Your task to perform on an android device: delete location history Image 0: 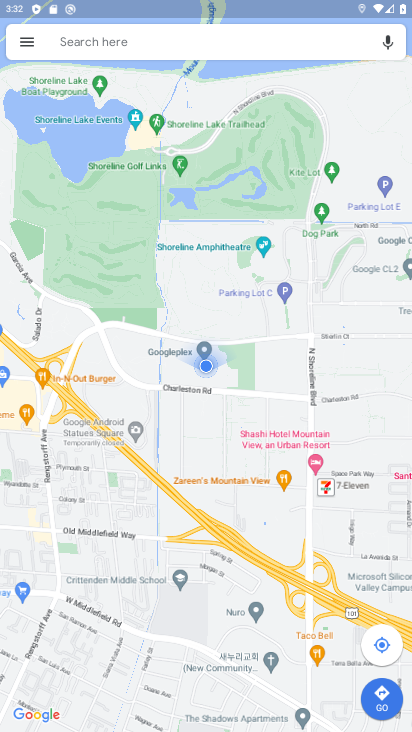
Step 0: press back button
Your task to perform on an android device: delete location history Image 1: 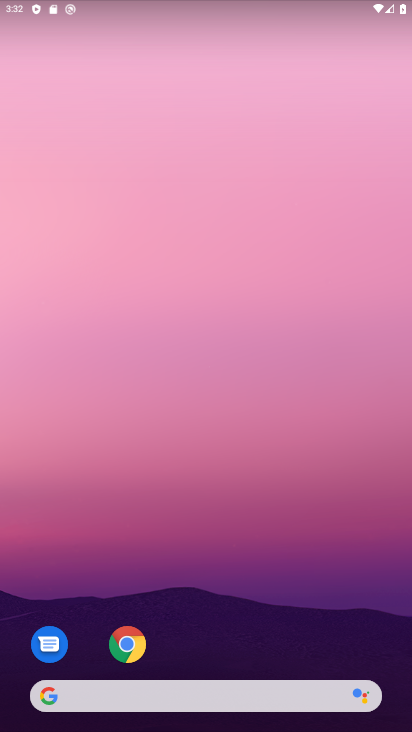
Step 1: click (34, 381)
Your task to perform on an android device: delete location history Image 2: 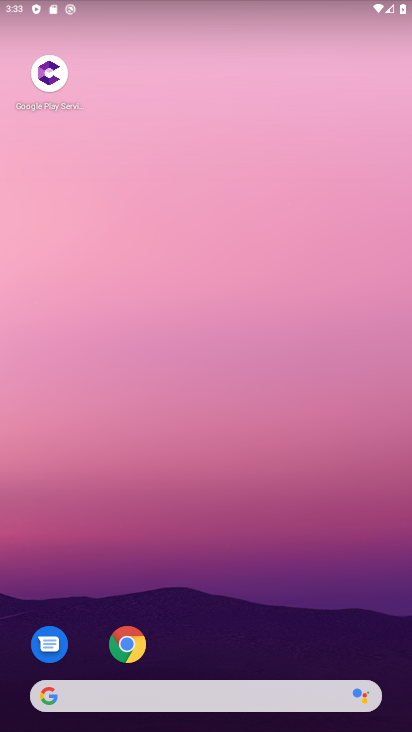
Step 2: drag from (163, 531) to (244, 117)
Your task to perform on an android device: delete location history Image 3: 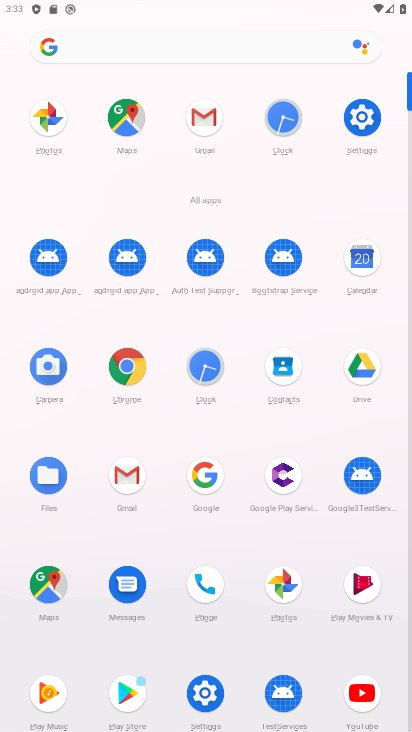
Step 3: click (118, 118)
Your task to perform on an android device: delete location history Image 4: 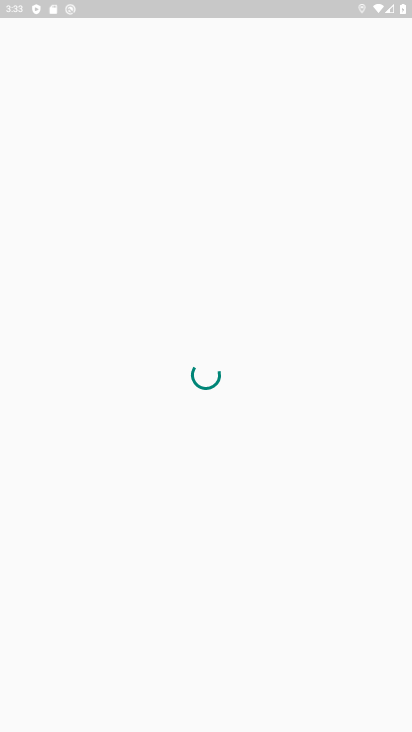
Step 4: click (31, 35)
Your task to perform on an android device: delete location history Image 5: 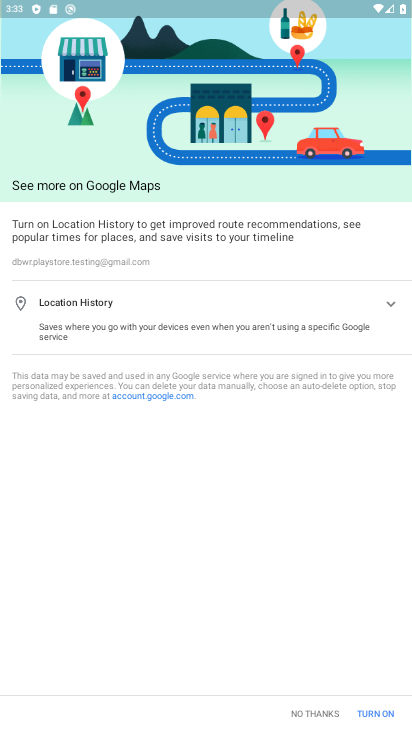
Step 5: click (322, 712)
Your task to perform on an android device: delete location history Image 6: 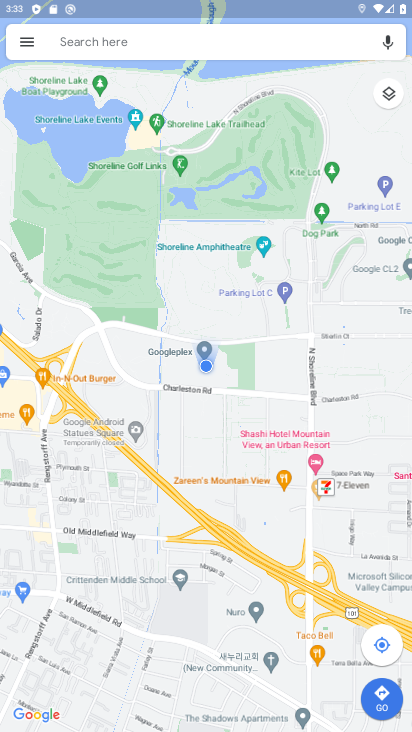
Step 6: click (17, 44)
Your task to perform on an android device: delete location history Image 7: 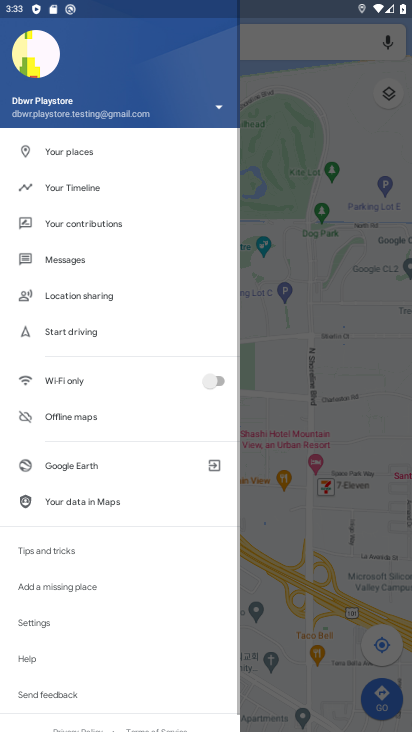
Step 7: click (66, 190)
Your task to perform on an android device: delete location history Image 8: 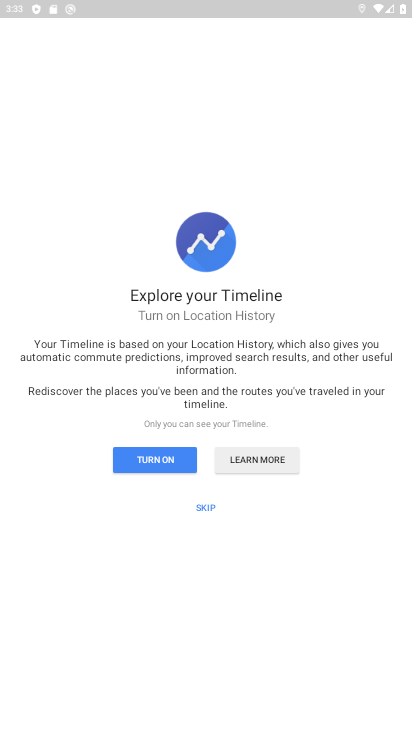
Step 8: click (201, 505)
Your task to perform on an android device: delete location history Image 9: 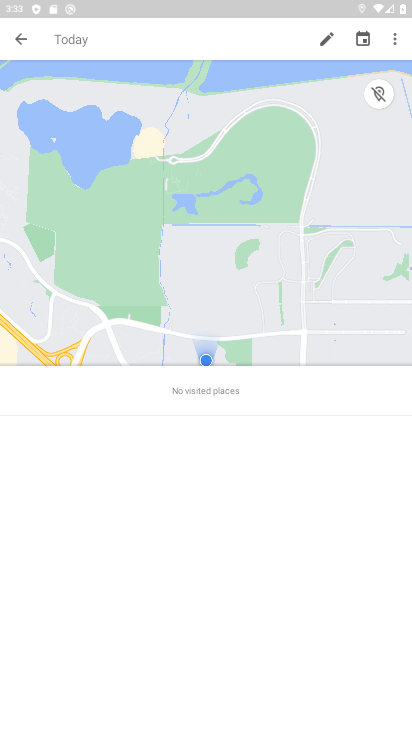
Step 9: click (395, 32)
Your task to perform on an android device: delete location history Image 10: 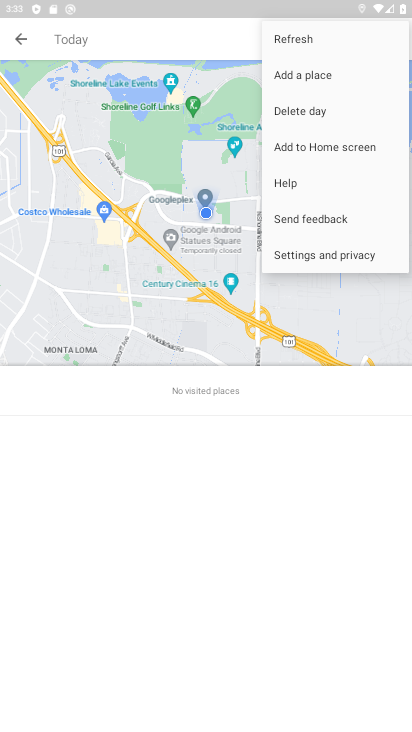
Step 10: click (317, 250)
Your task to perform on an android device: delete location history Image 11: 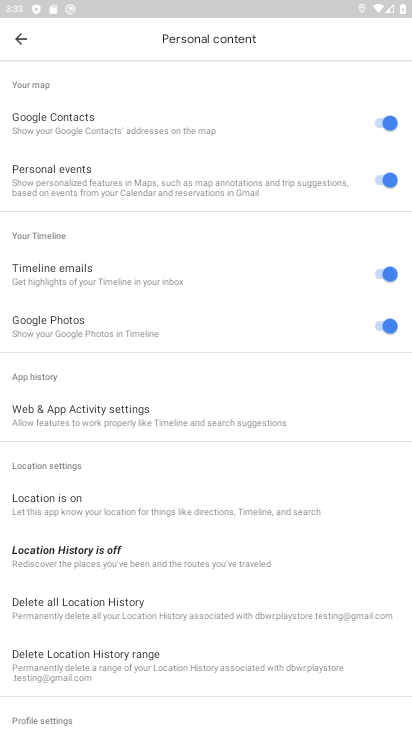
Step 11: click (76, 604)
Your task to perform on an android device: delete location history Image 12: 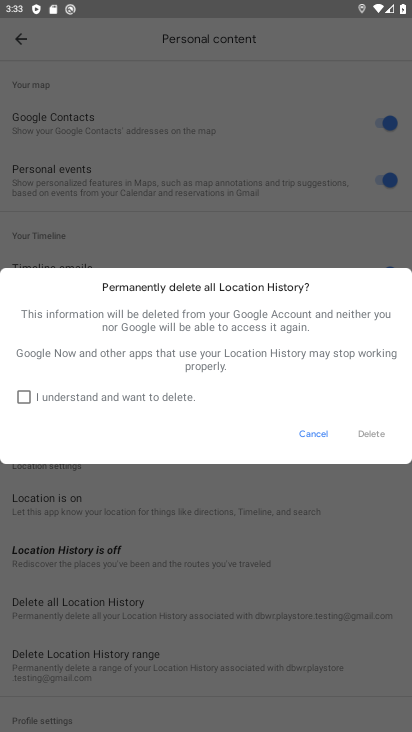
Step 12: click (39, 399)
Your task to perform on an android device: delete location history Image 13: 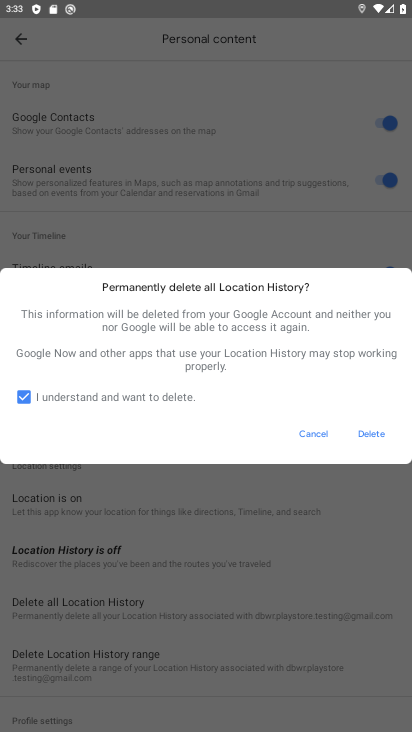
Step 13: click (362, 430)
Your task to perform on an android device: delete location history Image 14: 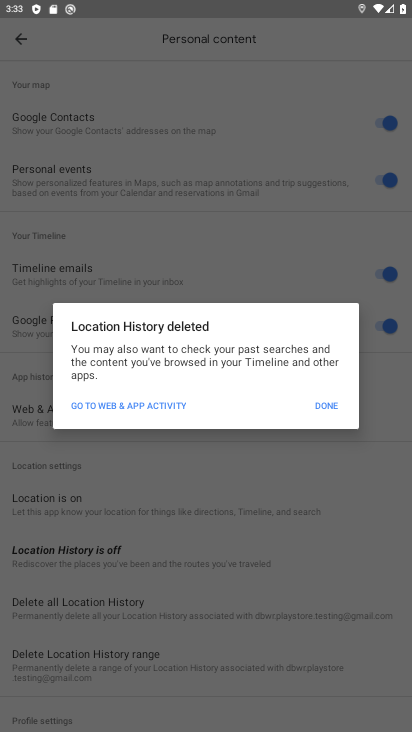
Step 14: task complete